Your task to perform on an android device: toggle notifications settings in the gmail app Image 0: 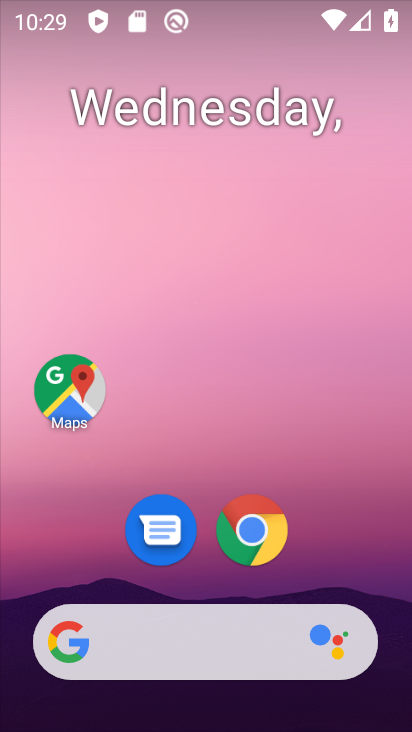
Step 0: drag from (326, 578) to (213, 17)
Your task to perform on an android device: toggle notifications settings in the gmail app Image 1: 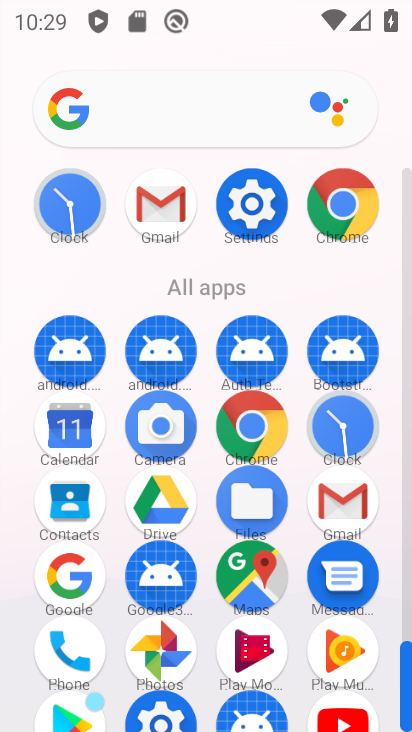
Step 1: click (256, 197)
Your task to perform on an android device: toggle notifications settings in the gmail app Image 2: 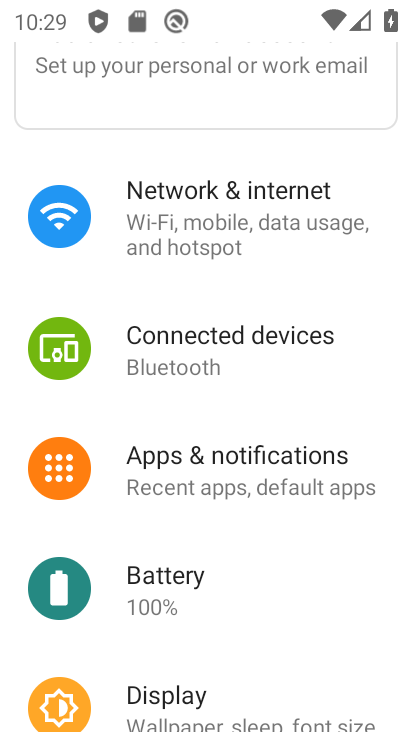
Step 2: click (227, 482)
Your task to perform on an android device: toggle notifications settings in the gmail app Image 3: 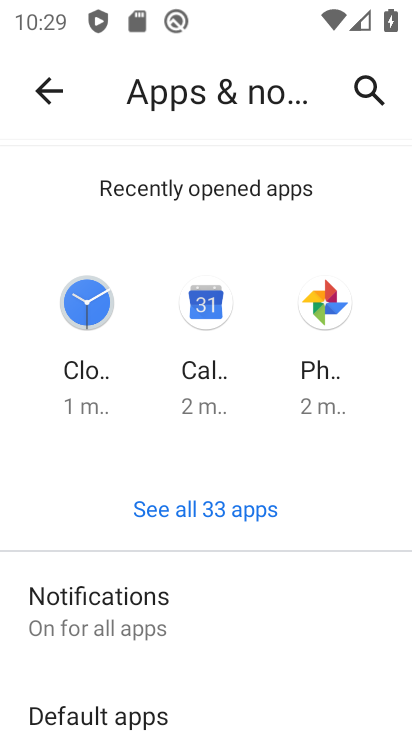
Step 3: click (140, 627)
Your task to perform on an android device: toggle notifications settings in the gmail app Image 4: 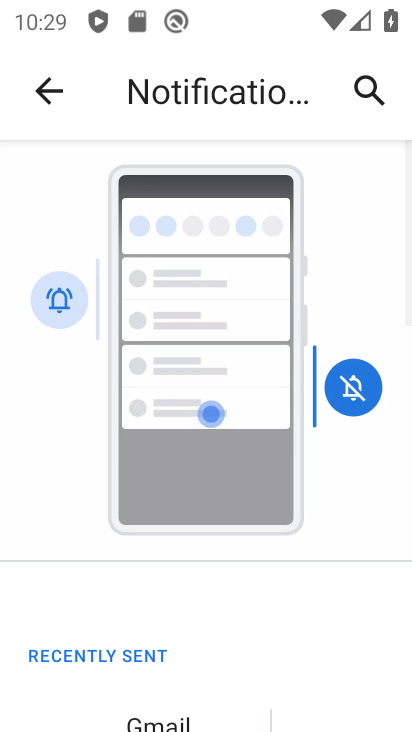
Step 4: drag from (147, 649) to (169, 370)
Your task to perform on an android device: toggle notifications settings in the gmail app Image 5: 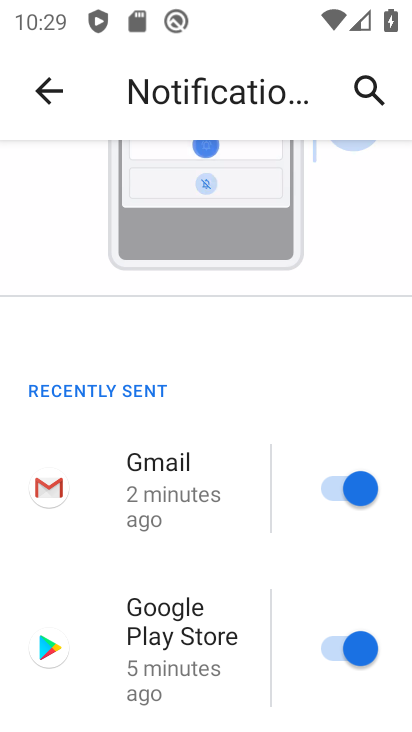
Step 5: drag from (205, 642) to (185, 365)
Your task to perform on an android device: toggle notifications settings in the gmail app Image 6: 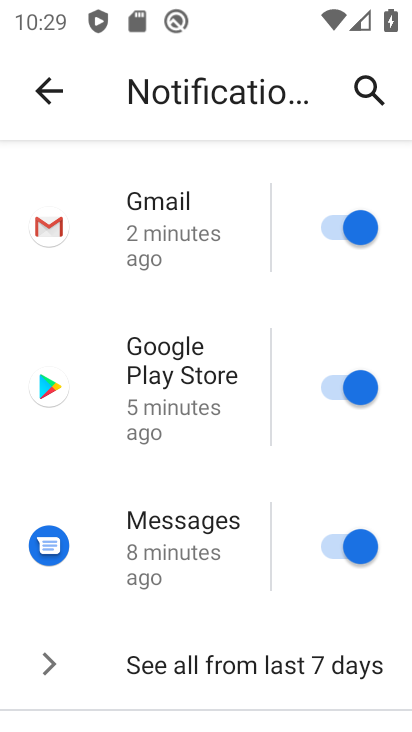
Step 6: drag from (181, 555) to (181, 381)
Your task to perform on an android device: toggle notifications settings in the gmail app Image 7: 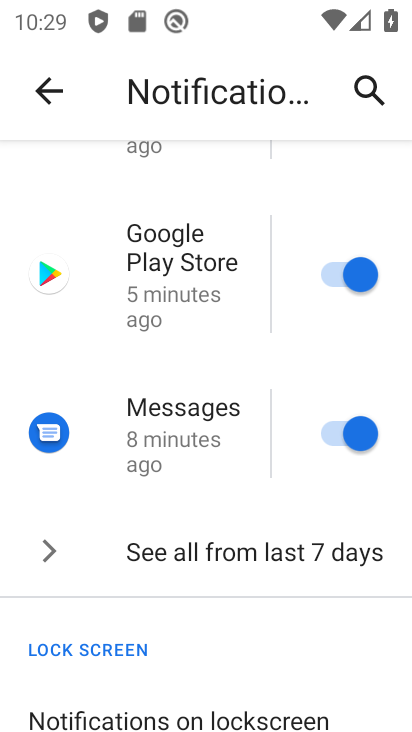
Step 7: drag from (251, 621) to (222, 412)
Your task to perform on an android device: toggle notifications settings in the gmail app Image 8: 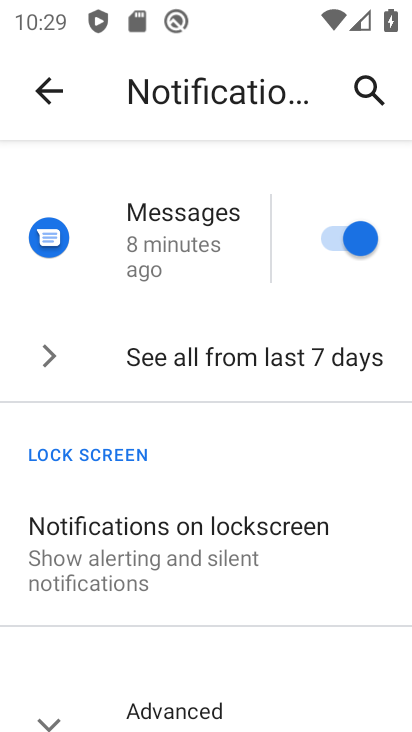
Step 8: click (183, 562)
Your task to perform on an android device: toggle notifications settings in the gmail app Image 9: 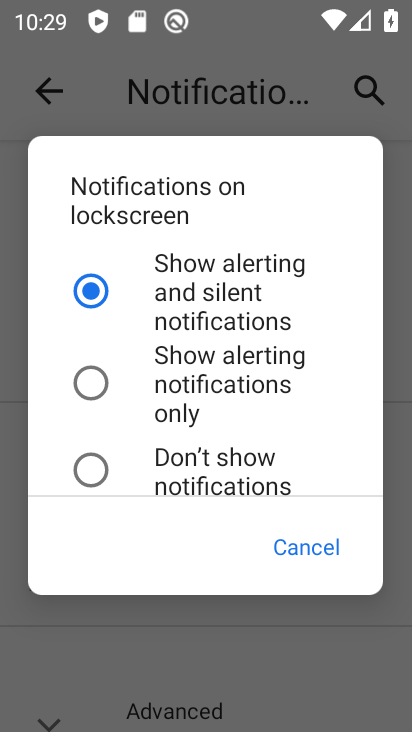
Step 9: click (100, 469)
Your task to perform on an android device: toggle notifications settings in the gmail app Image 10: 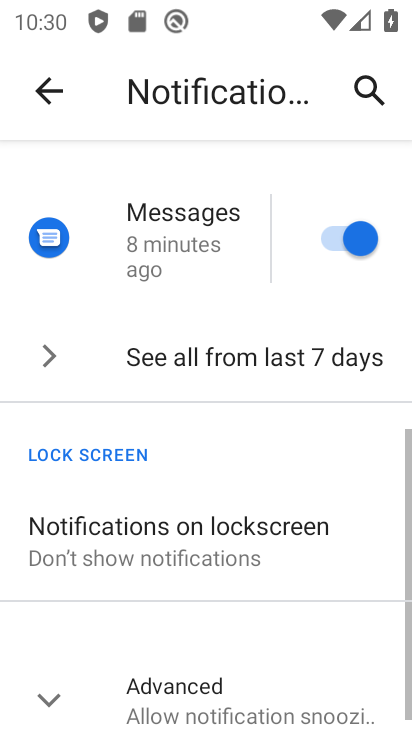
Step 10: task complete